Your task to perform on an android device: Open display settings Image 0: 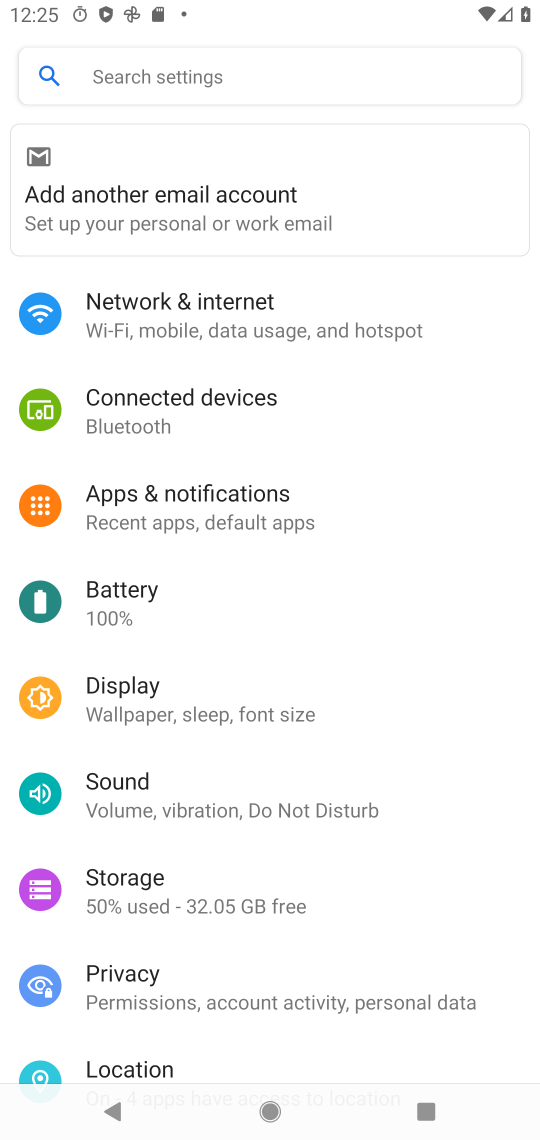
Step 0: press home button
Your task to perform on an android device: Open display settings Image 1: 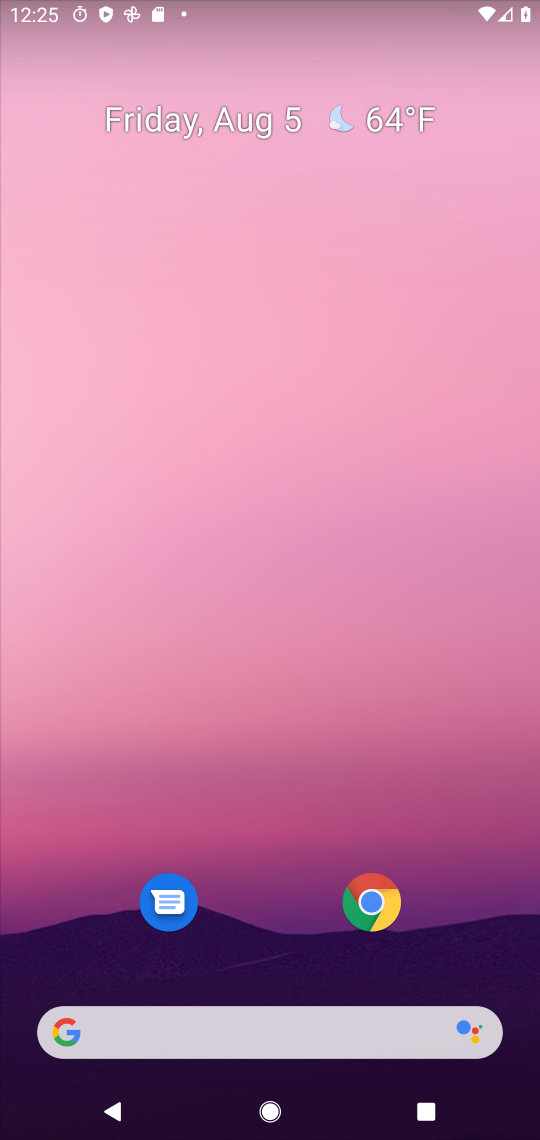
Step 1: drag from (291, 751) to (237, 273)
Your task to perform on an android device: Open display settings Image 2: 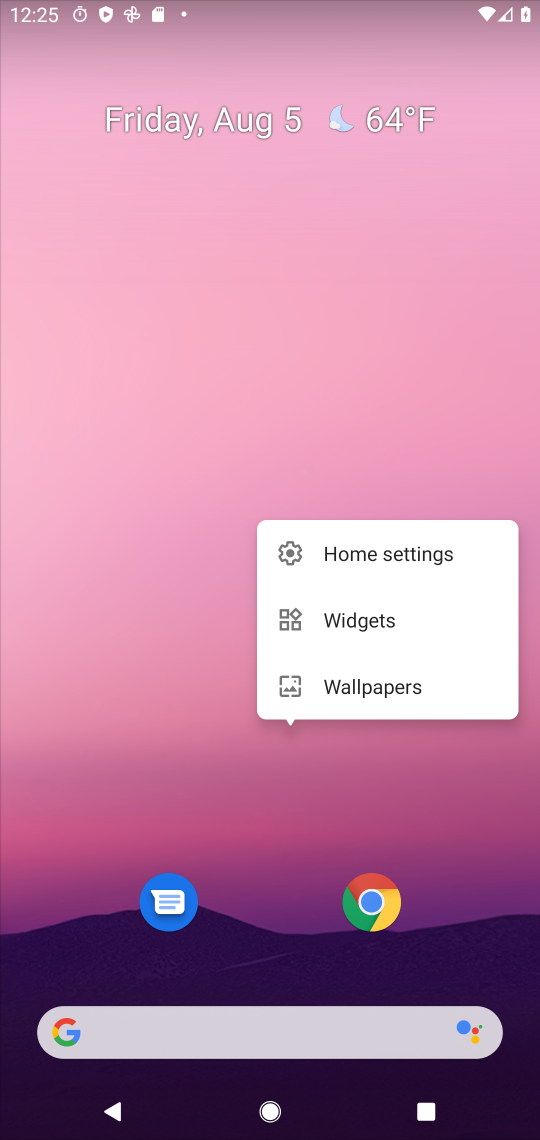
Step 2: click (225, 864)
Your task to perform on an android device: Open display settings Image 3: 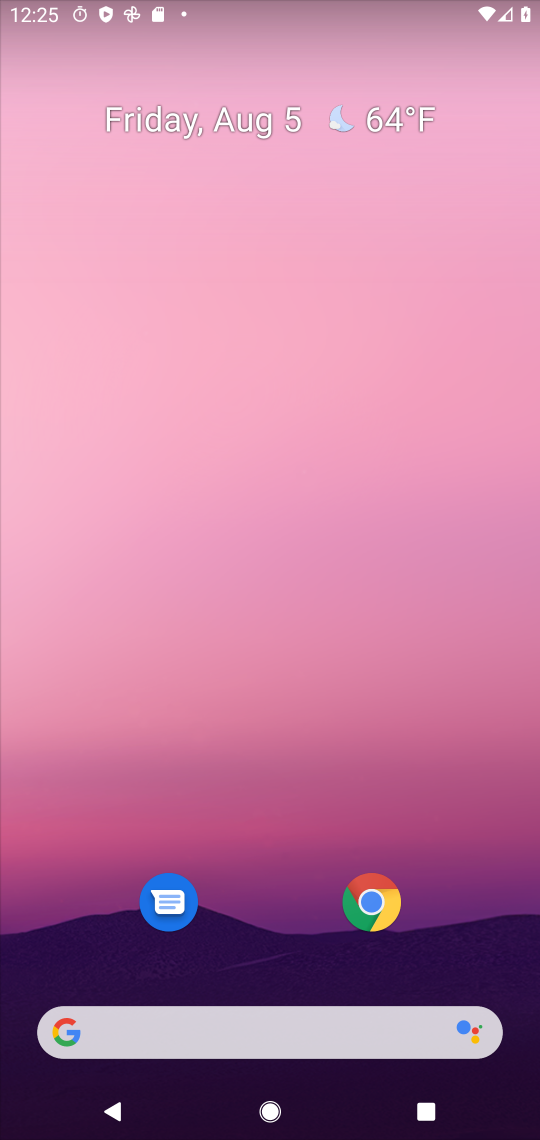
Step 3: drag from (294, 1008) to (282, 250)
Your task to perform on an android device: Open display settings Image 4: 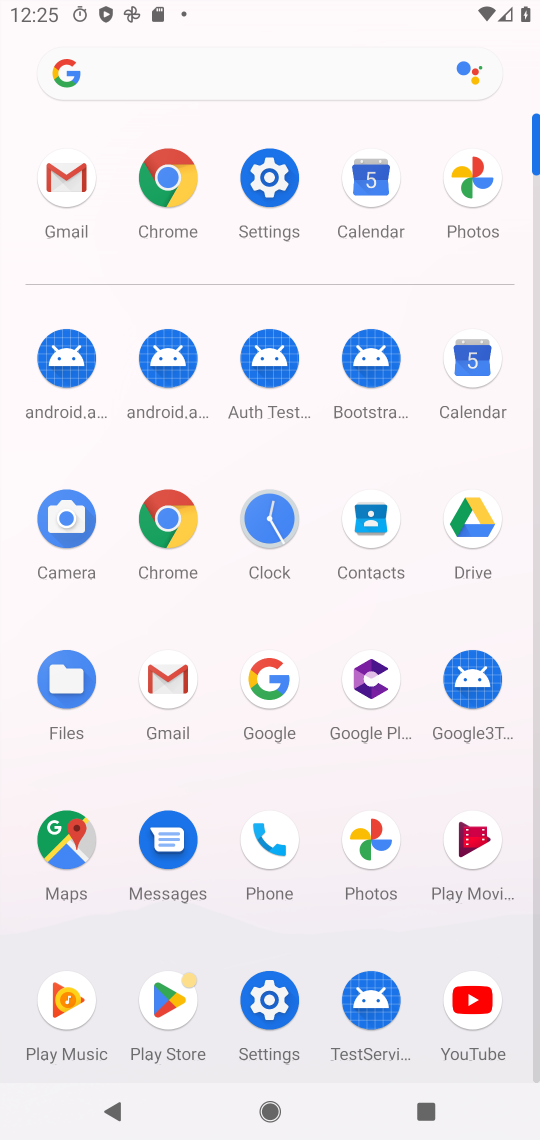
Step 4: click (273, 986)
Your task to perform on an android device: Open display settings Image 5: 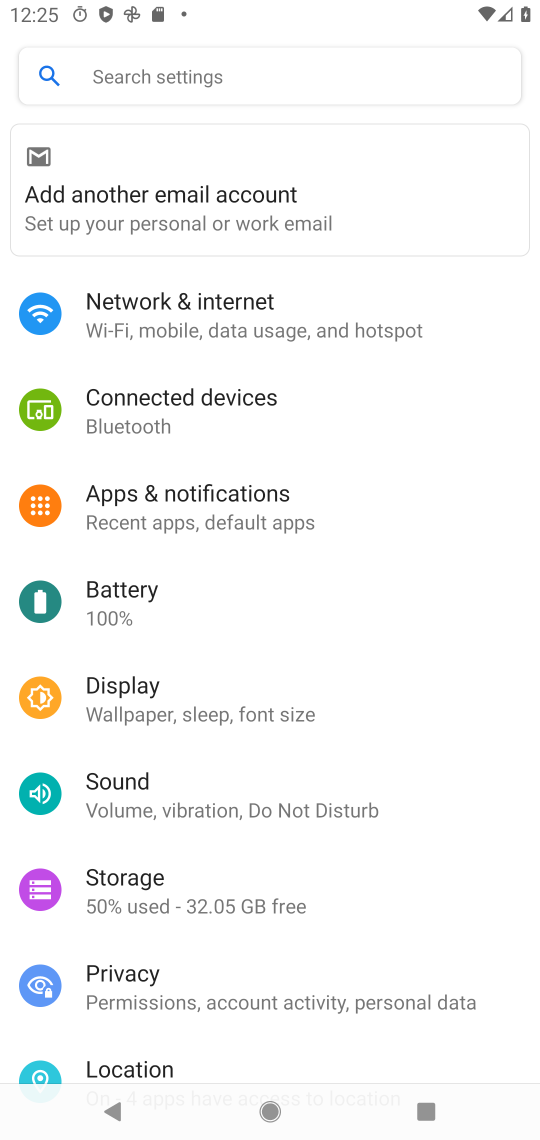
Step 5: click (183, 689)
Your task to perform on an android device: Open display settings Image 6: 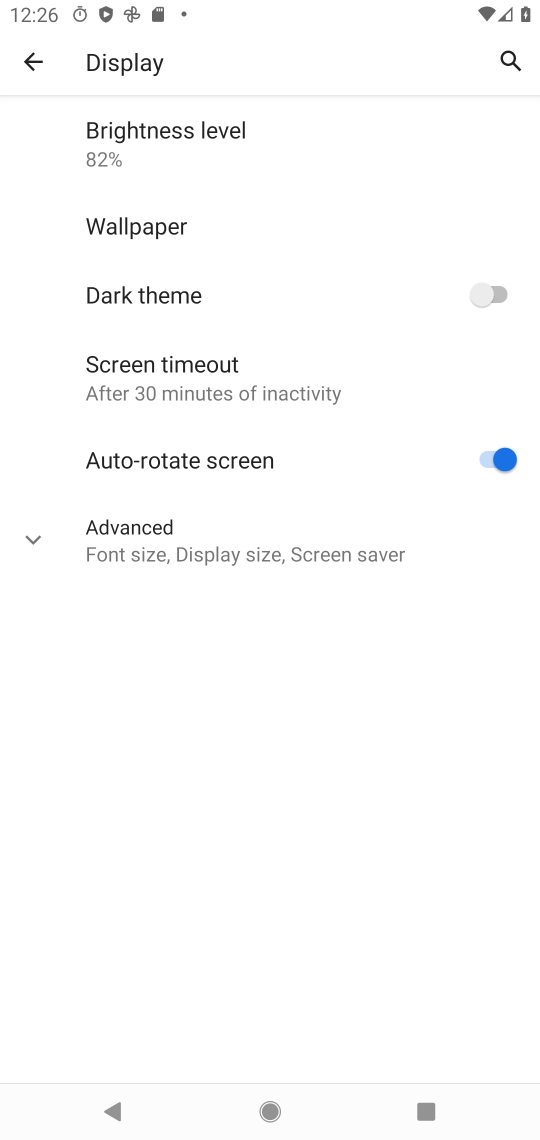
Step 6: task complete